Your task to perform on an android device: check google app version Image 0: 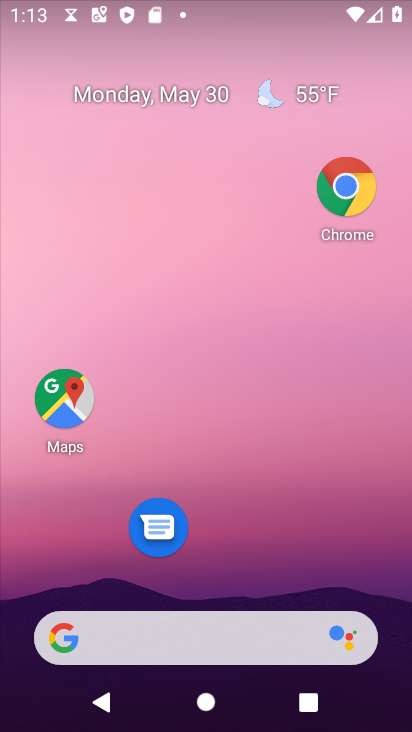
Step 0: drag from (219, 569) to (199, 245)
Your task to perform on an android device: check google app version Image 1: 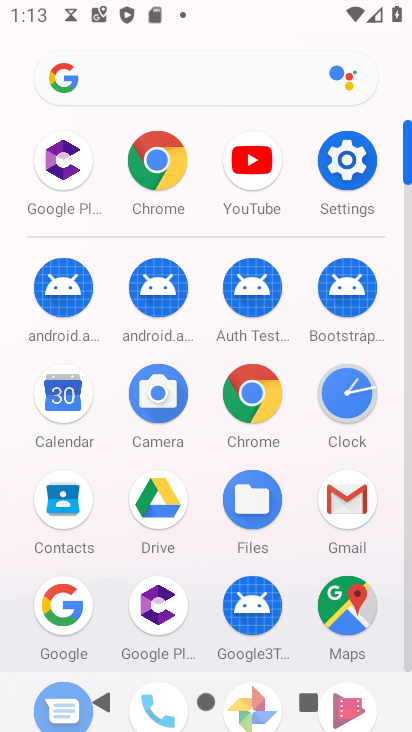
Step 1: click (86, 605)
Your task to perform on an android device: check google app version Image 2: 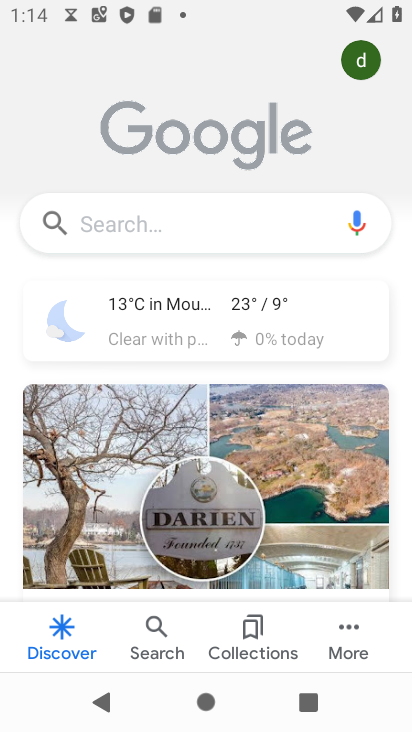
Step 2: drag from (282, 511) to (282, 187)
Your task to perform on an android device: check google app version Image 3: 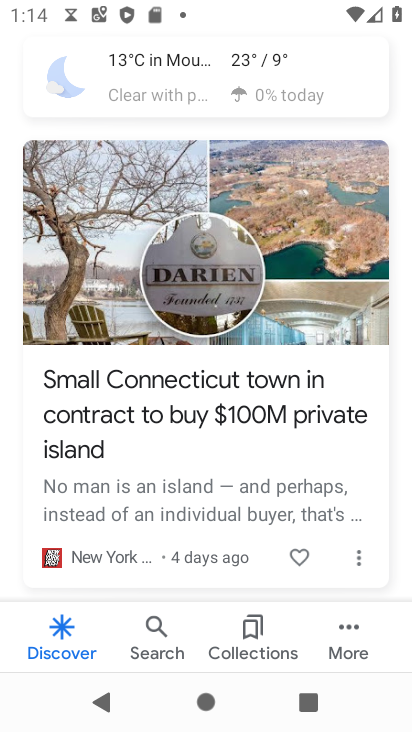
Step 3: click (354, 626)
Your task to perform on an android device: check google app version Image 4: 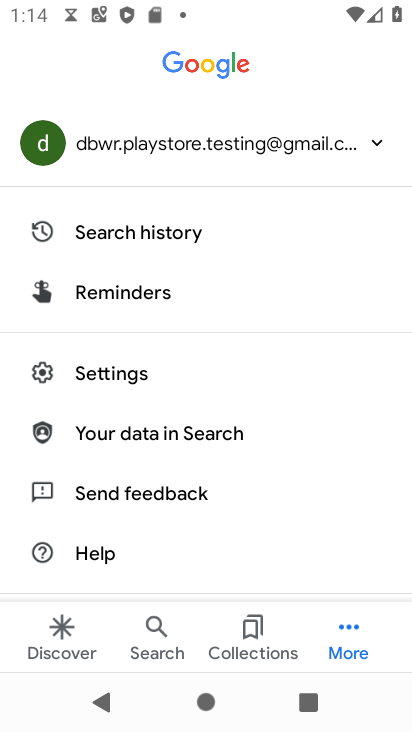
Step 4: drag from (176, 542) to (217, 63)
Your task to perform on an android device: check google app version Image 5: 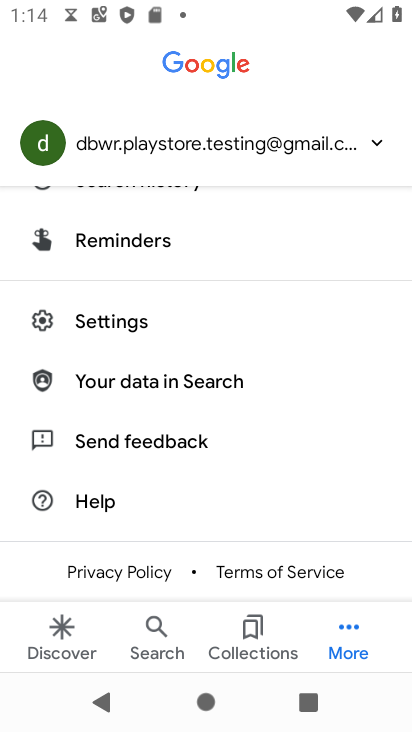
Step 5: click (120, 310)
Your task to perform on an android device: check google app version Image 6: 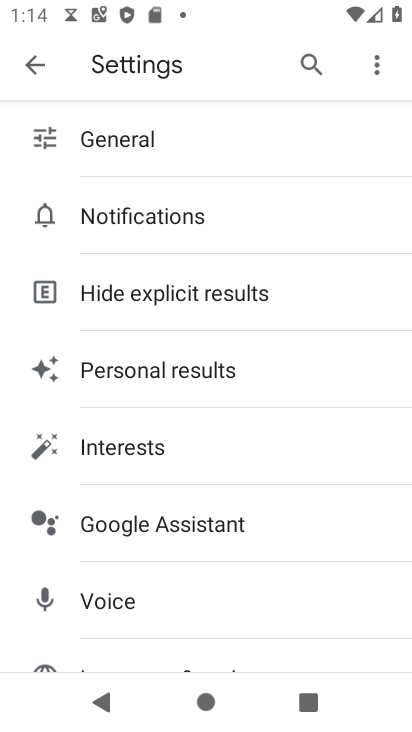
Step 6: drag from (178, 504) to (239, 97)
Your task to perform on an android device: check google app version Image 7: 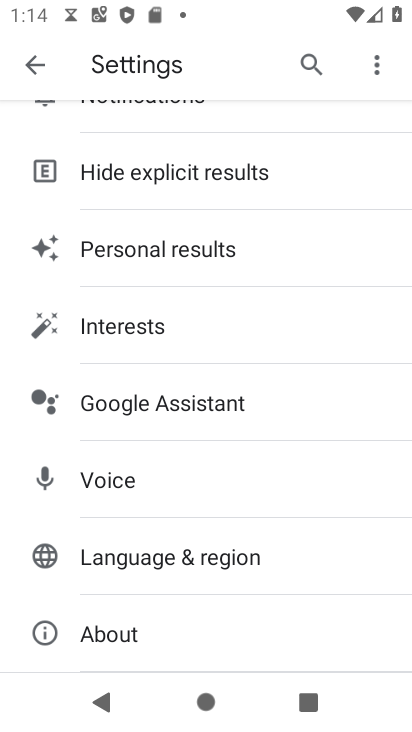
Step 7: click (138, 624)
Your task to perform on an android device: check google app version Image 8: 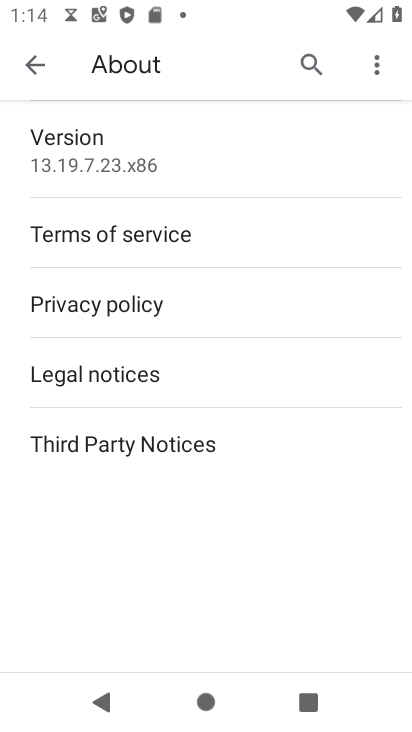
Step 8: click (142, 177)
Your task to perform on an android device: check google app version Image 9: 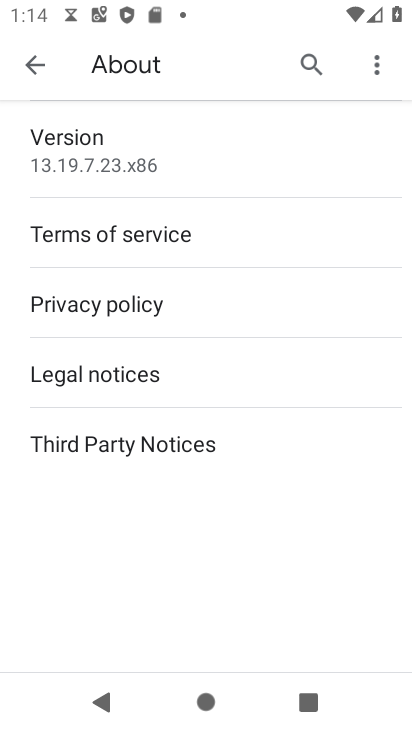
Step 9: task complete